Your task to perform on an android device: Open the web browser Image 0: 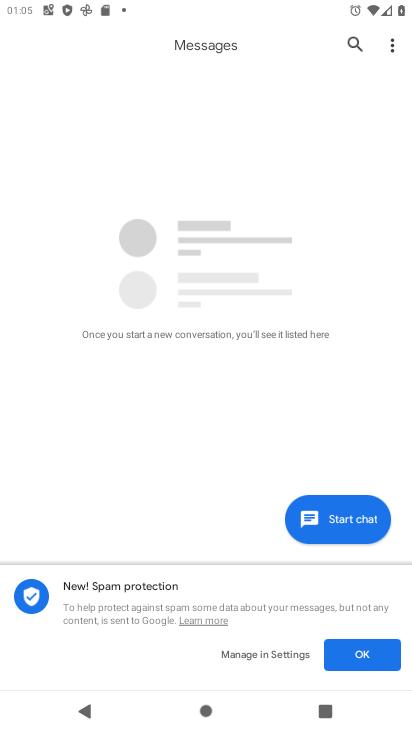
Step 0: press home button
Your task to perform on an android device: Open the web browser Image 1: 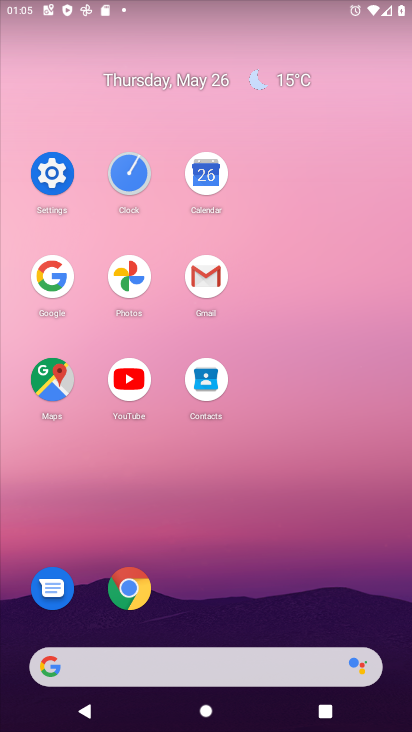
Step 1: click (121, 590)
Your task to perform on an android device: Open the web browser Image 2: 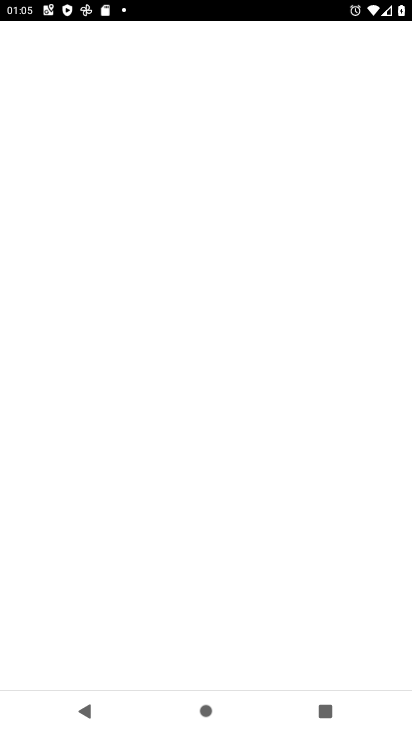
Step 2: task complete